Your task to perform on an android device: set an alarm Image 0: 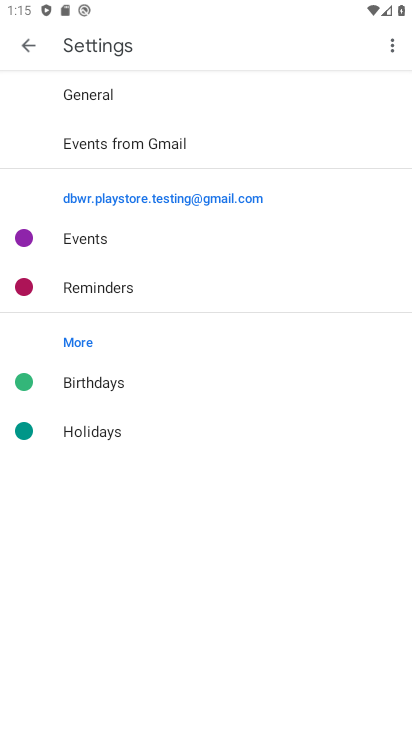
Step 0: press home button
Your task to perform on an android device: set an alarm Image 1: 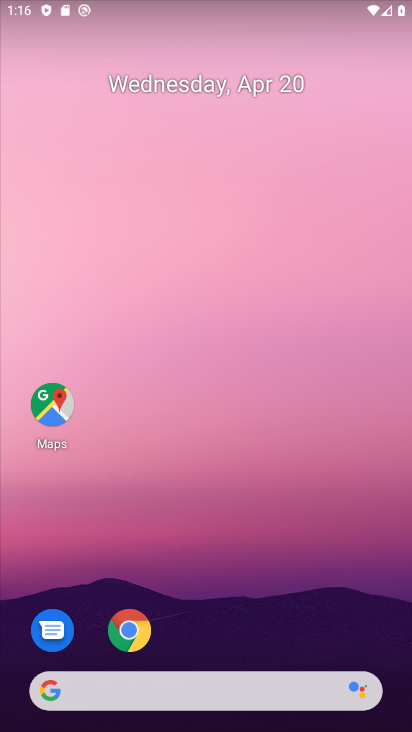
Step 1: drag from (213, 584) to (159, 119)
Your task to perform on an android device: set an alarm Image 2: 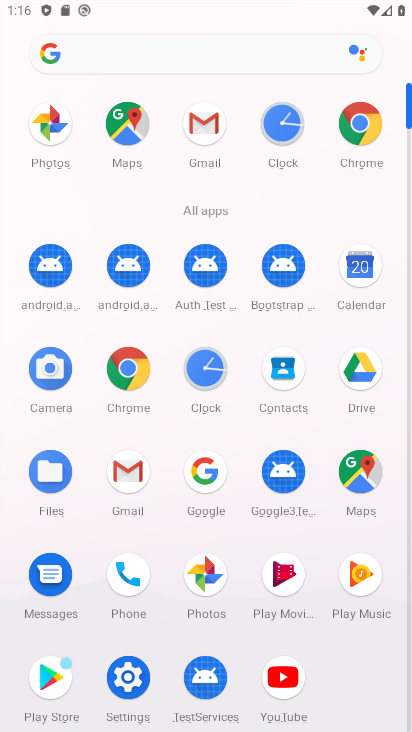
Step 2: click (282, 132)
Your task to perform on an android device: set an alarm Image 3: 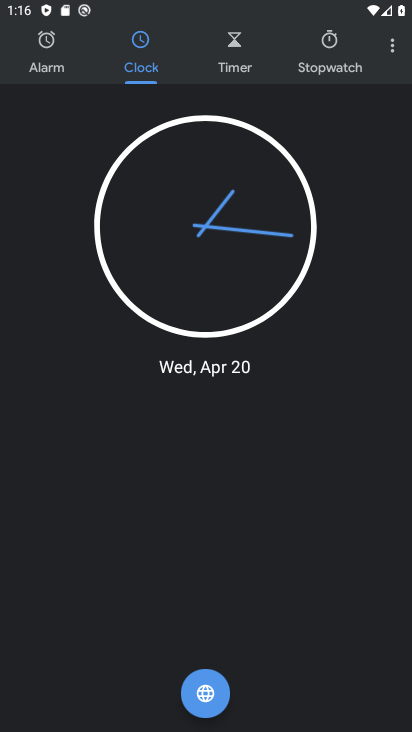
Step 3: click (57, 45)
Your task to perform on an android device: set an alarm Image 4: 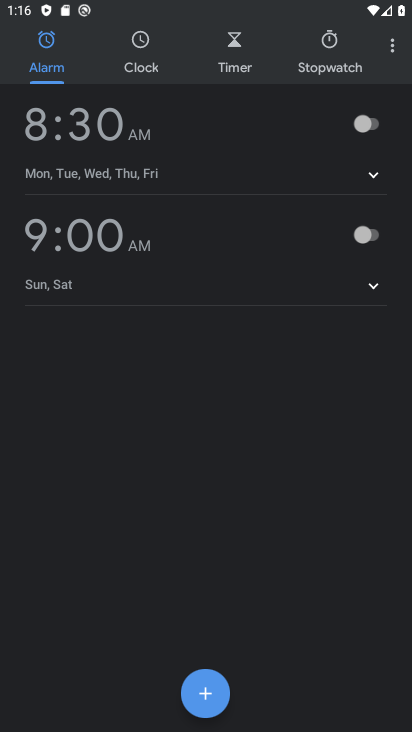
Step 4: click (210, 694)
Your task to perform on an android device: set an alarm Image 5: 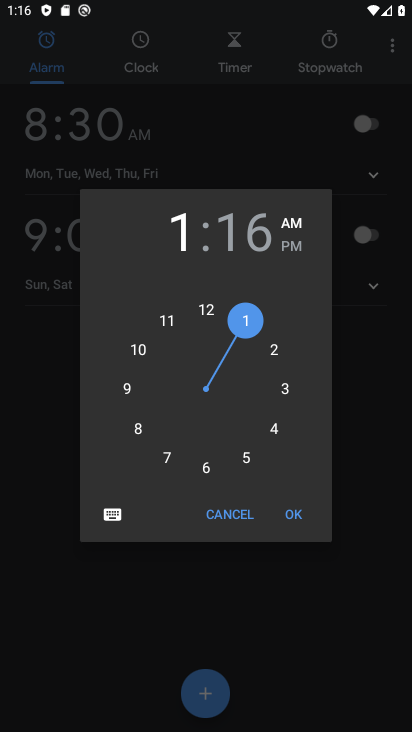
Step 5: click (296, 511)
Your task to perform on an android device: set an alarm Image 6: 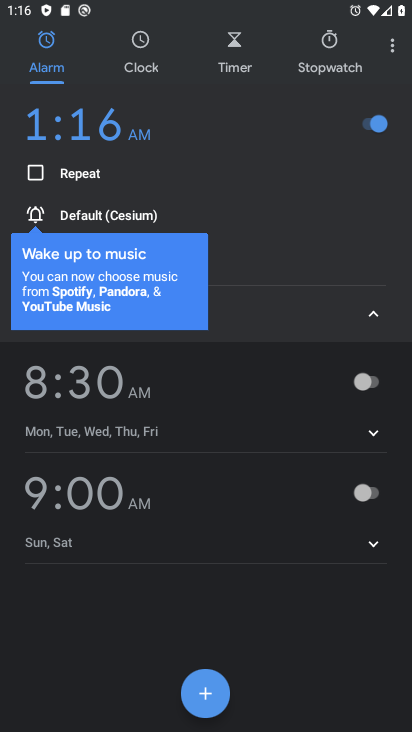
Step 6: click (373, 318)
Your task to perform on an android device: set an alarm Image 7: 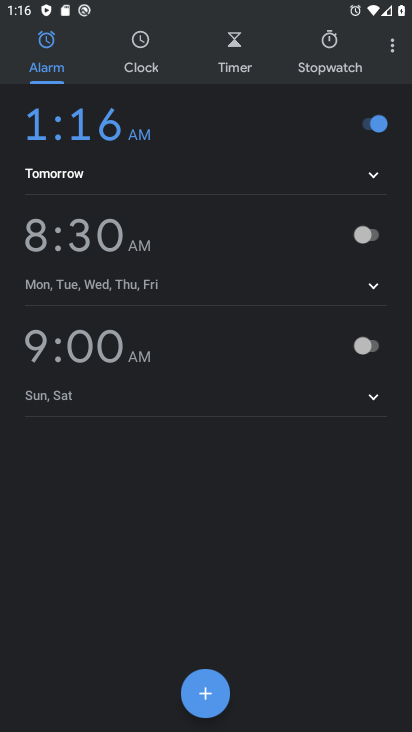
Step 7: task complete